Your task to perform on an android device: Go to Google maps Image 0: 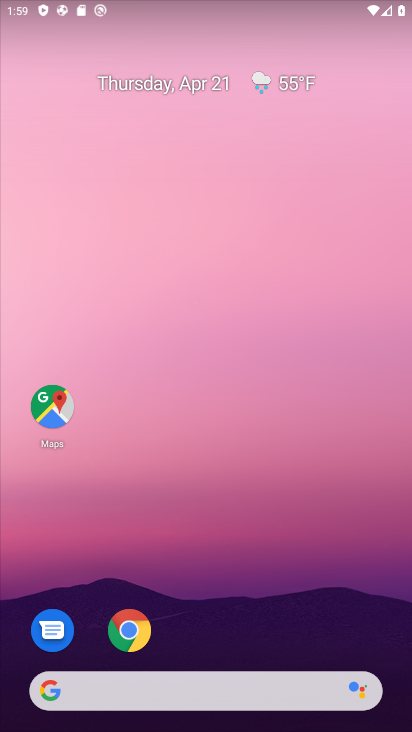
Step 0: click (49, 408)
Your task to perform on an android device: Go to Google maps Image 1: 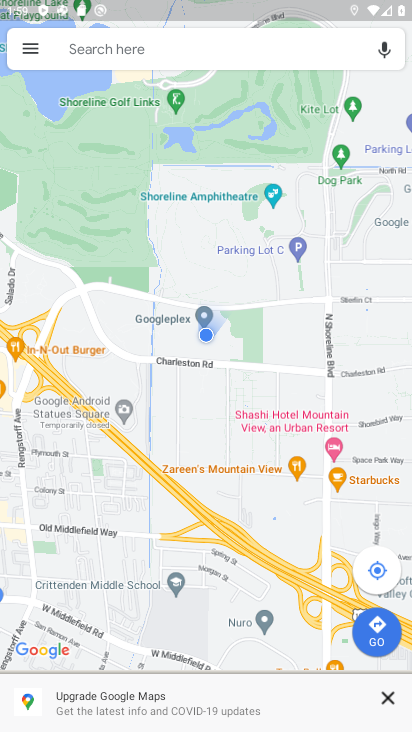
Step 1: click (138, 50)
Your task to perform on an android device: Go to Google maps Image 2: 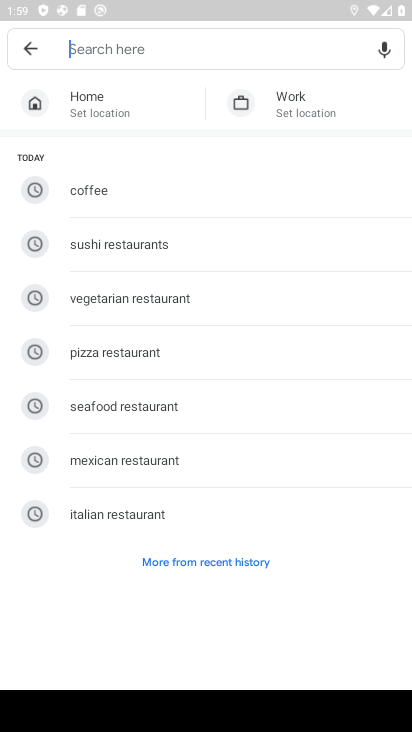
Step 2: task complete